Your task to perform on an android device: turn pop-ups on in chrome Image 0: 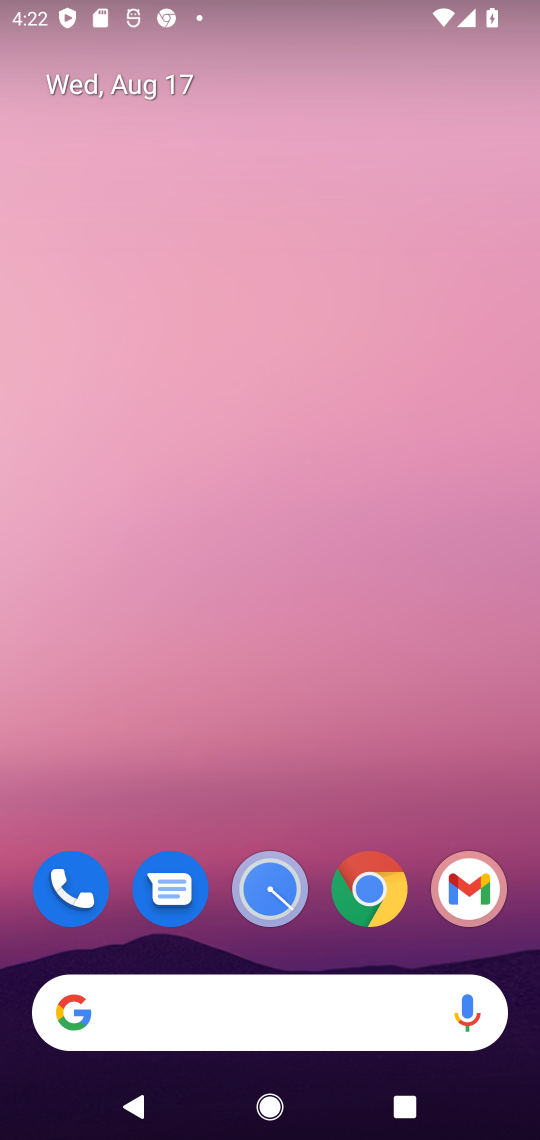
Step 0: click (381, 894)
Your task to perform on an android device: turn pop-ups on in chrome Image 1: 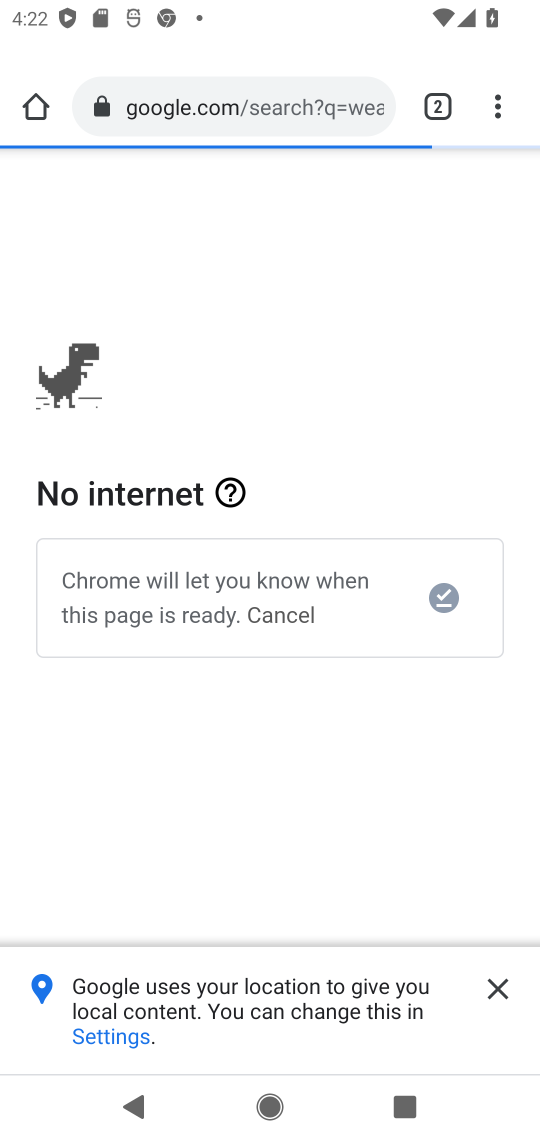
Step 1: click (493, 104)
Your task to perform on an android device: turn pop-ups on in chrome Image 2: 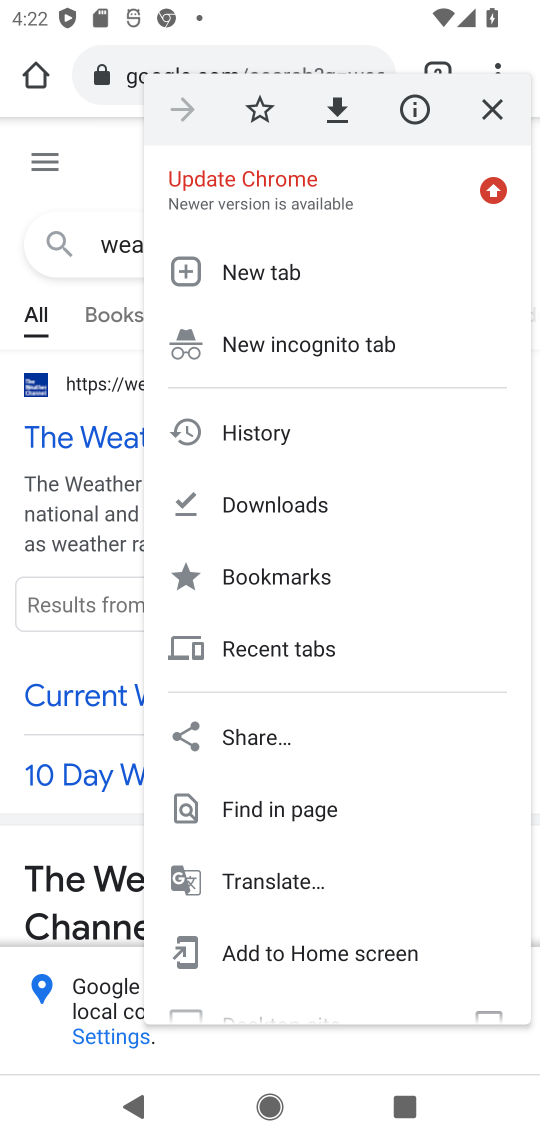
Step 2: drag from (376, 888) to (405, 329)
Your task to perform on an android device: turn pop-ups on in chrome Image 3: 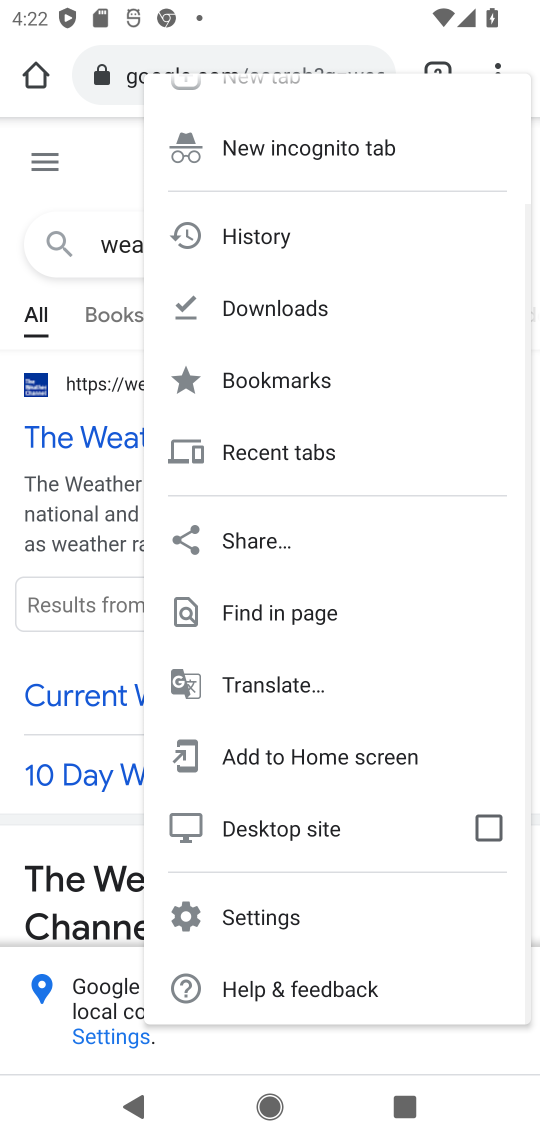
Step 3: click (249, 916)
Your task to perform on an android device: turn pop-ups on in chrome Image 4: 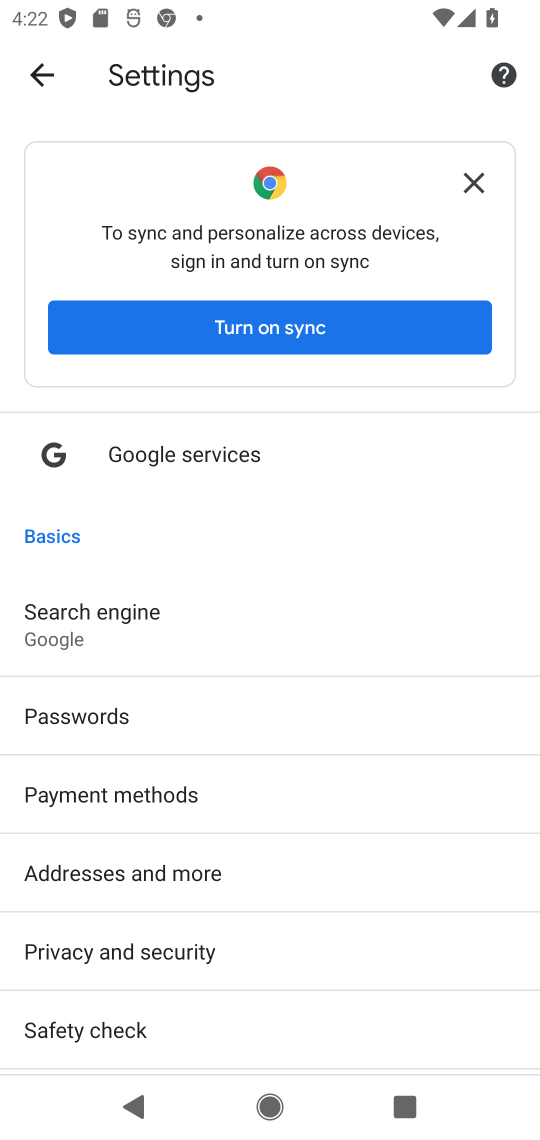
Step 4: drag from (292, 956) to (292, 476)
Your task to perform on an android device: turn pop-ups on in chrome Image 5: 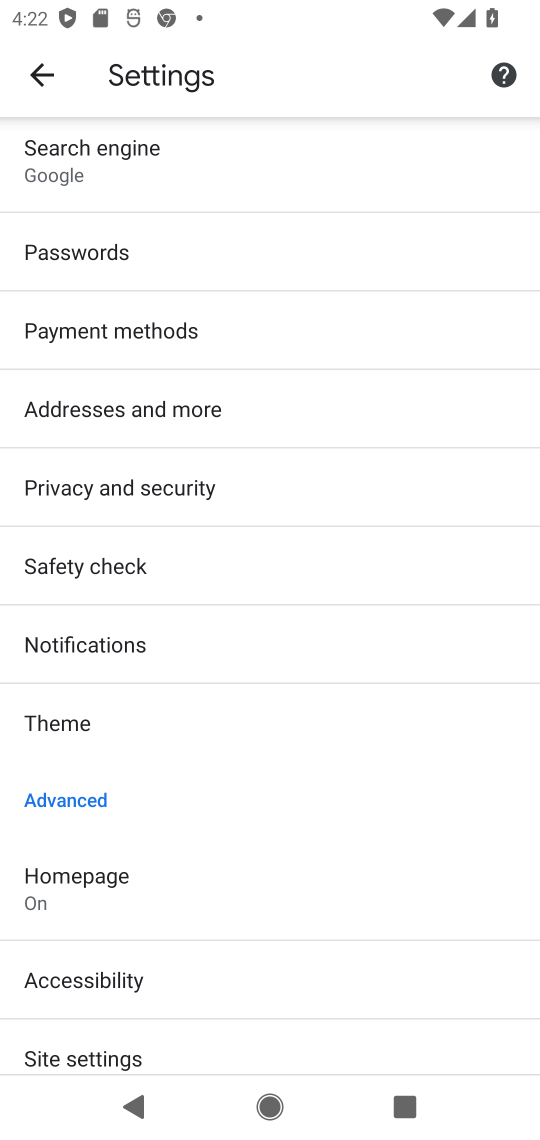
Step 5: click (107, 1046)
Your task to perform on an android device: turn pop-ups on in chrome Image 6: 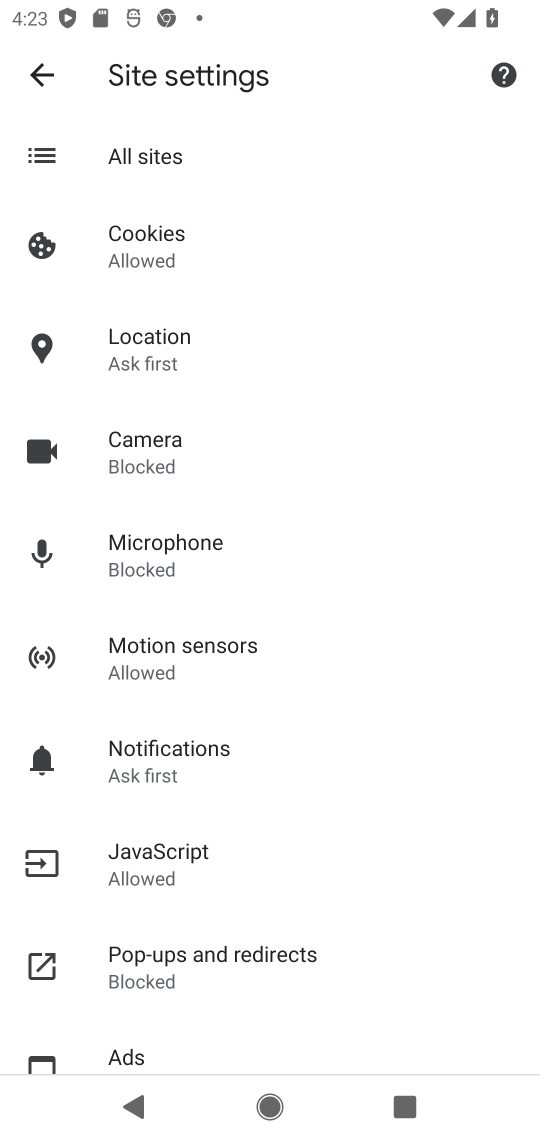
Step 6: click (143, 943)
Your task to perform on an android device: turn pop-ups on in chrome Image 7: 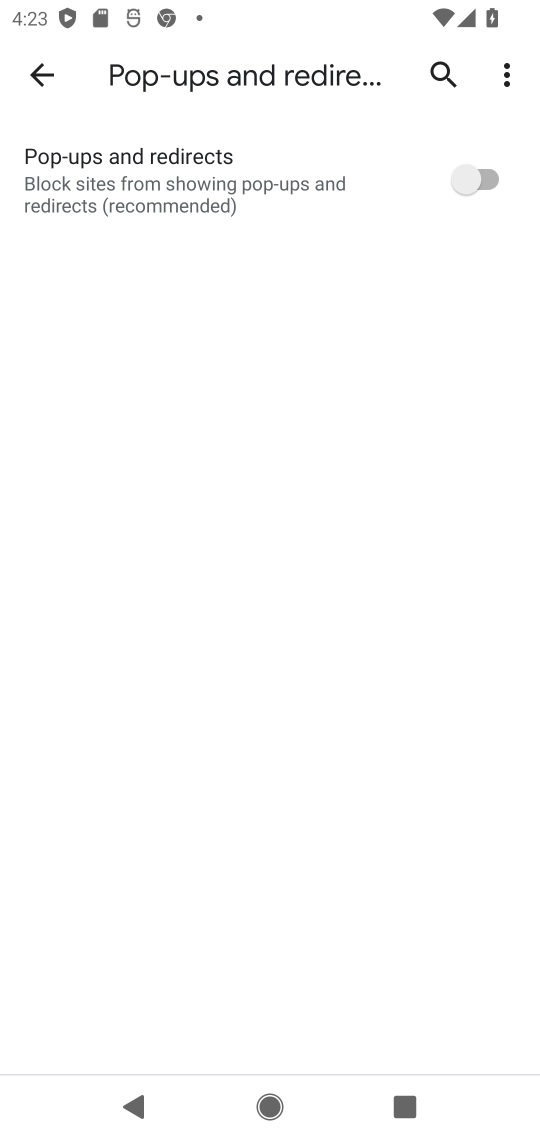
Step 7: click (460, 175)
Your task to perform on an android device: turn pop-ups on in chrome Image 8: 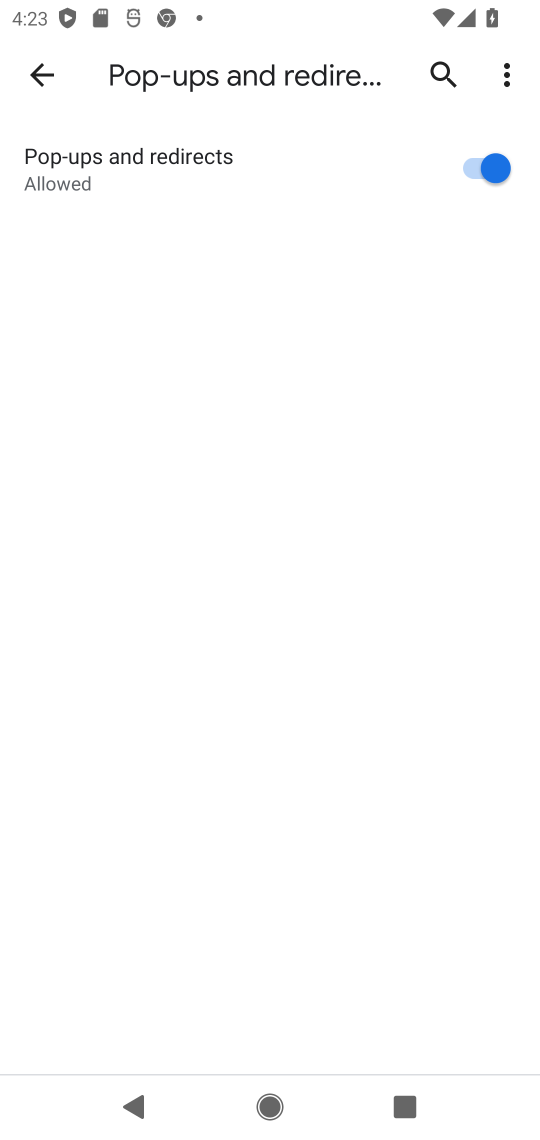
Step 8: task complete